Your task to perform on an android device: Open the Play Movies app and select the watchlist tab. Image 0: 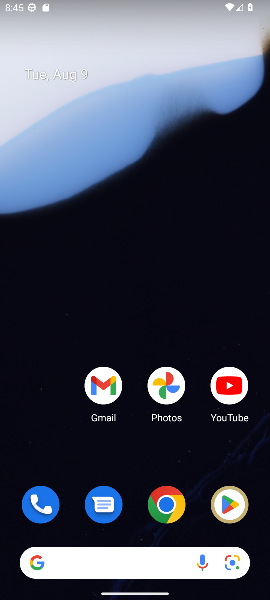
Step 0: drag from (134, 526) to (98, 178)
Your task to perform on an android device: Open the Play Movies app and select the watchlist tab. Image 1: 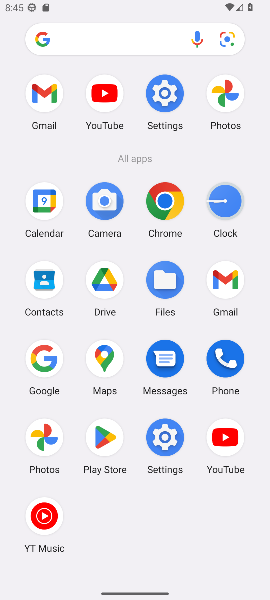
Step 1: task complete